Your task to perform on an android device: open app "Lyft - Rideshare, Bikes, Scooters & Transit" Image 0: 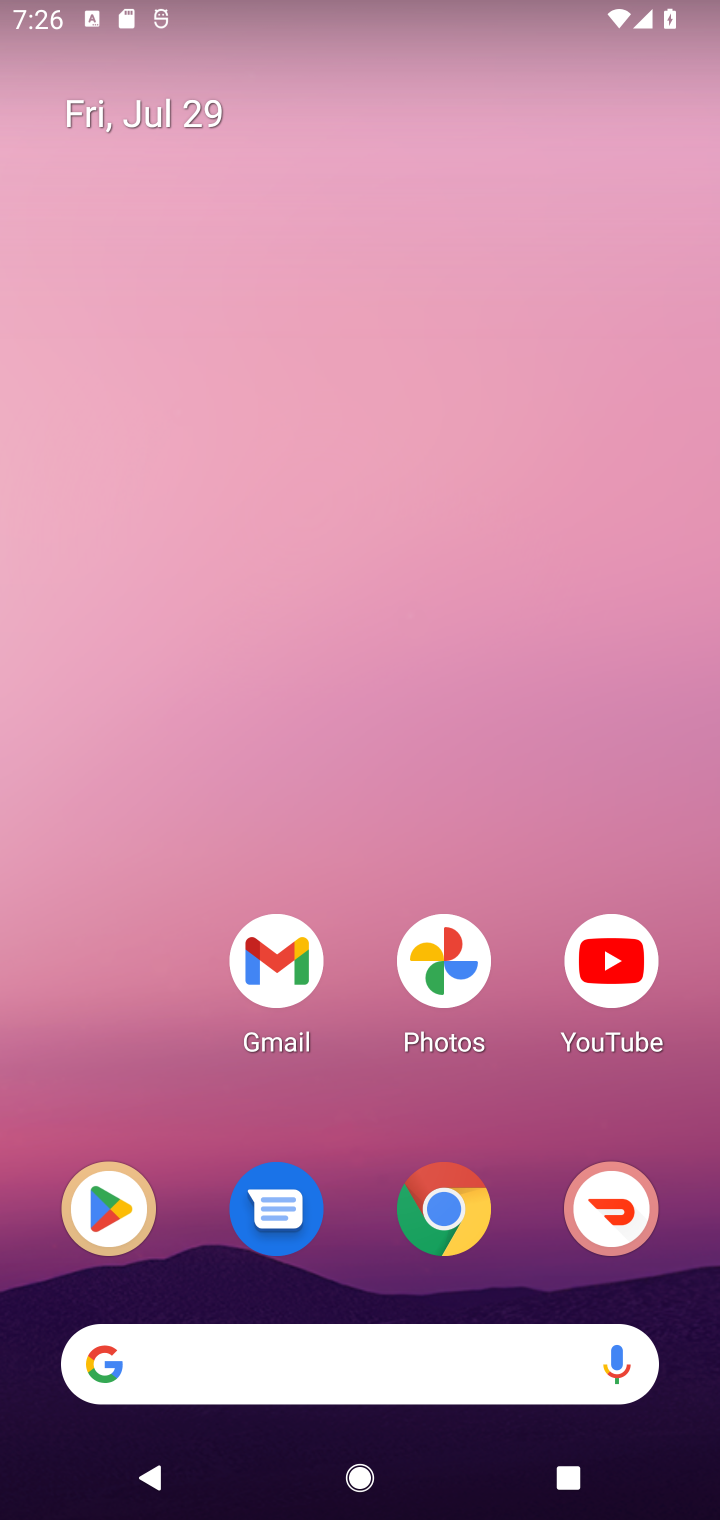
Step 0: click (100, 1221)
Your task to perform on an android device: open app "Lyft - Rideshare, Bikes, Scooters & Transit" Image 1: 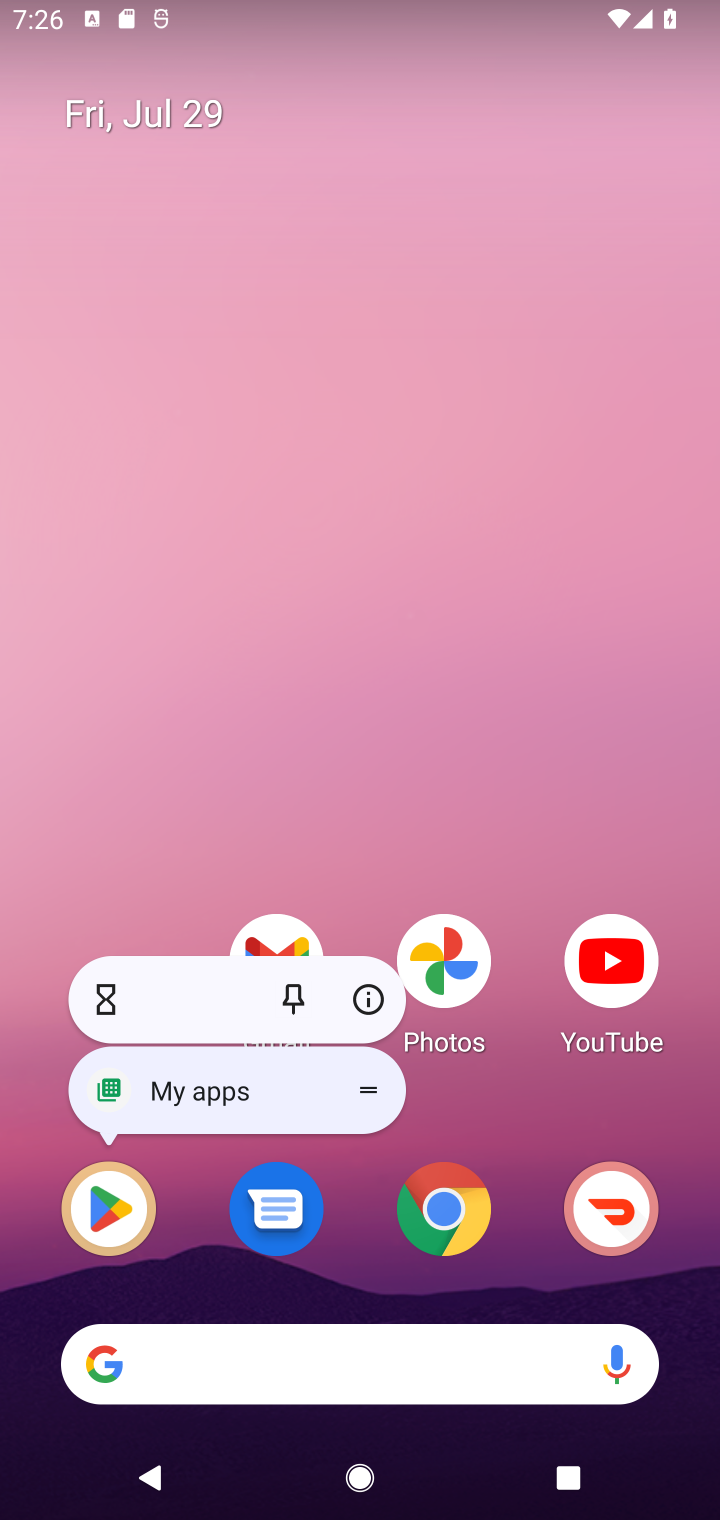
Step 1: click (123, 1189)
Your task to perform on an android device: open app "Lyft - Rideshare, Bikes, Scooters & Transit" Image 2: 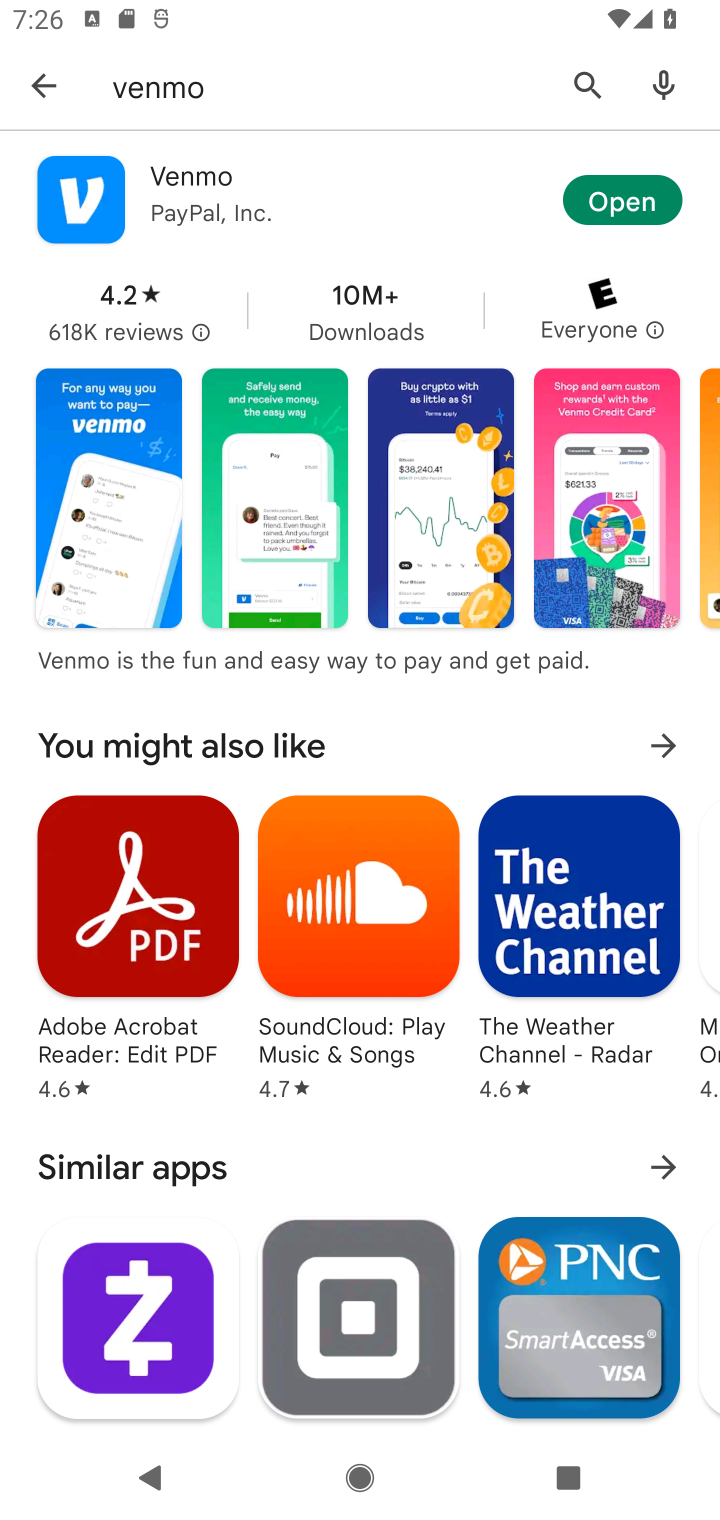
Step 2: click (572, 92)
Your task to perform on an android device: open app "Lyft - Rideshare, Bikes, Scooters & Transit" Image 3: 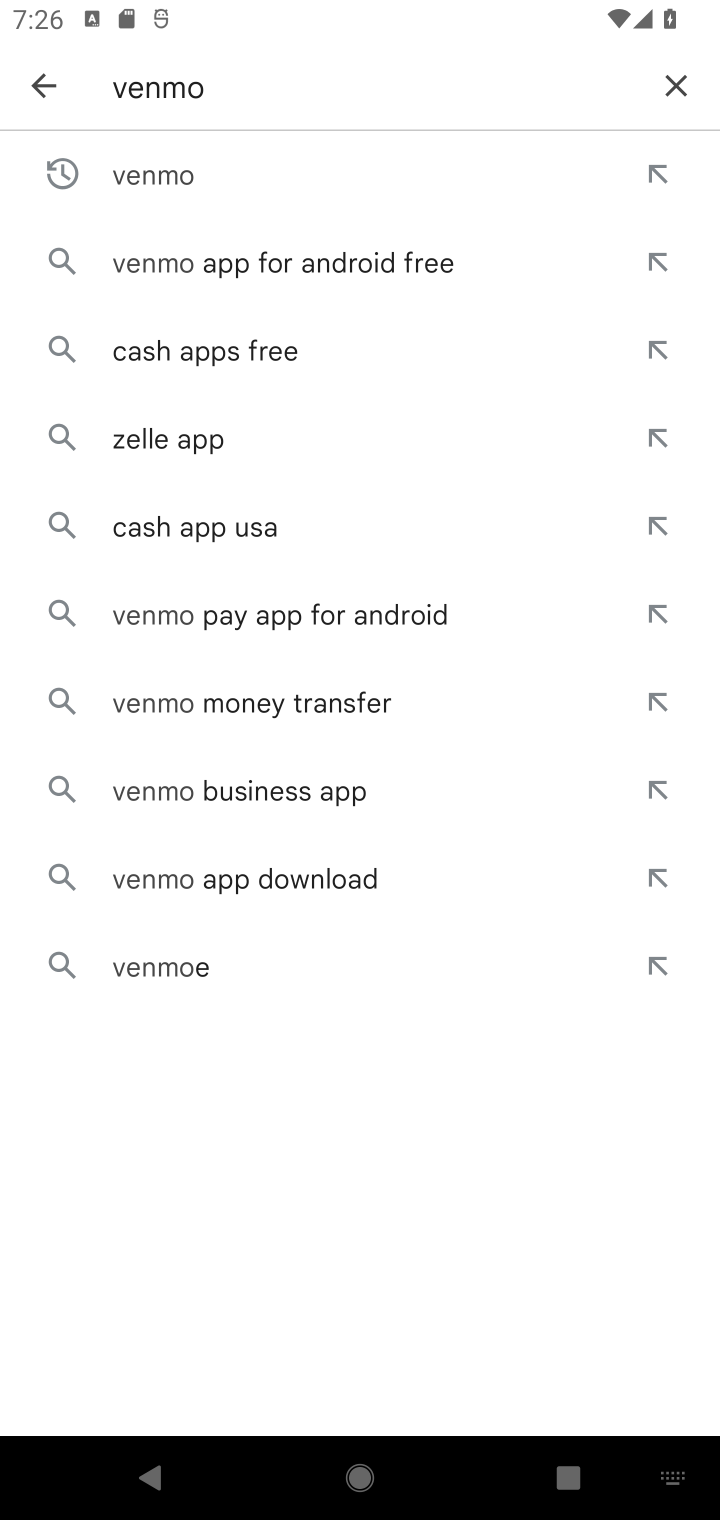
Step 3: click (682, 103)
Your task to perform on an android device: open app "Lyft - Rideshare, Bikes, Scooters & Transit" Image 4: 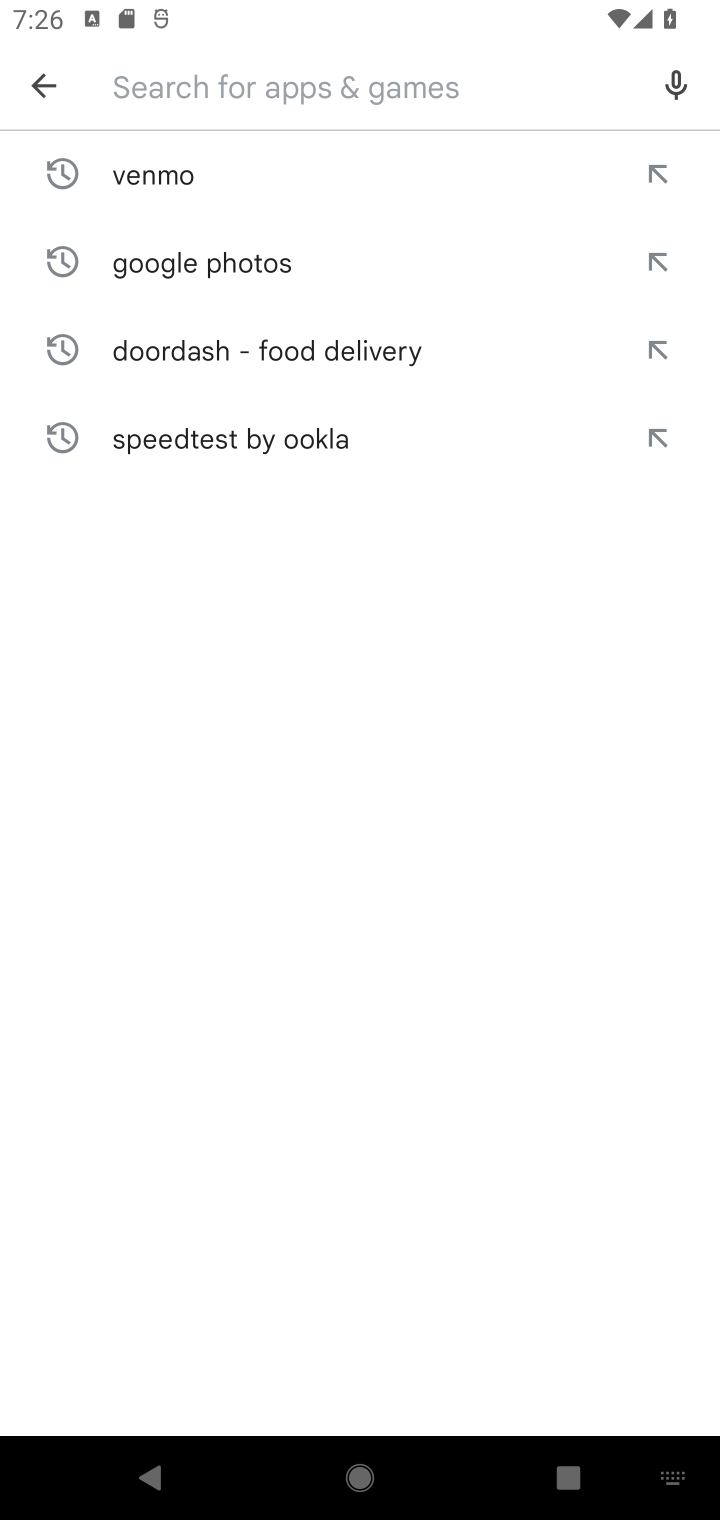
Step 4: type "Lyft - Rideshare, Bikes, Scooters & Transit"
Your task to perform on an android device: open app "Lyft - Rideshare, Bikes, Scooters & Transit" Image 5: 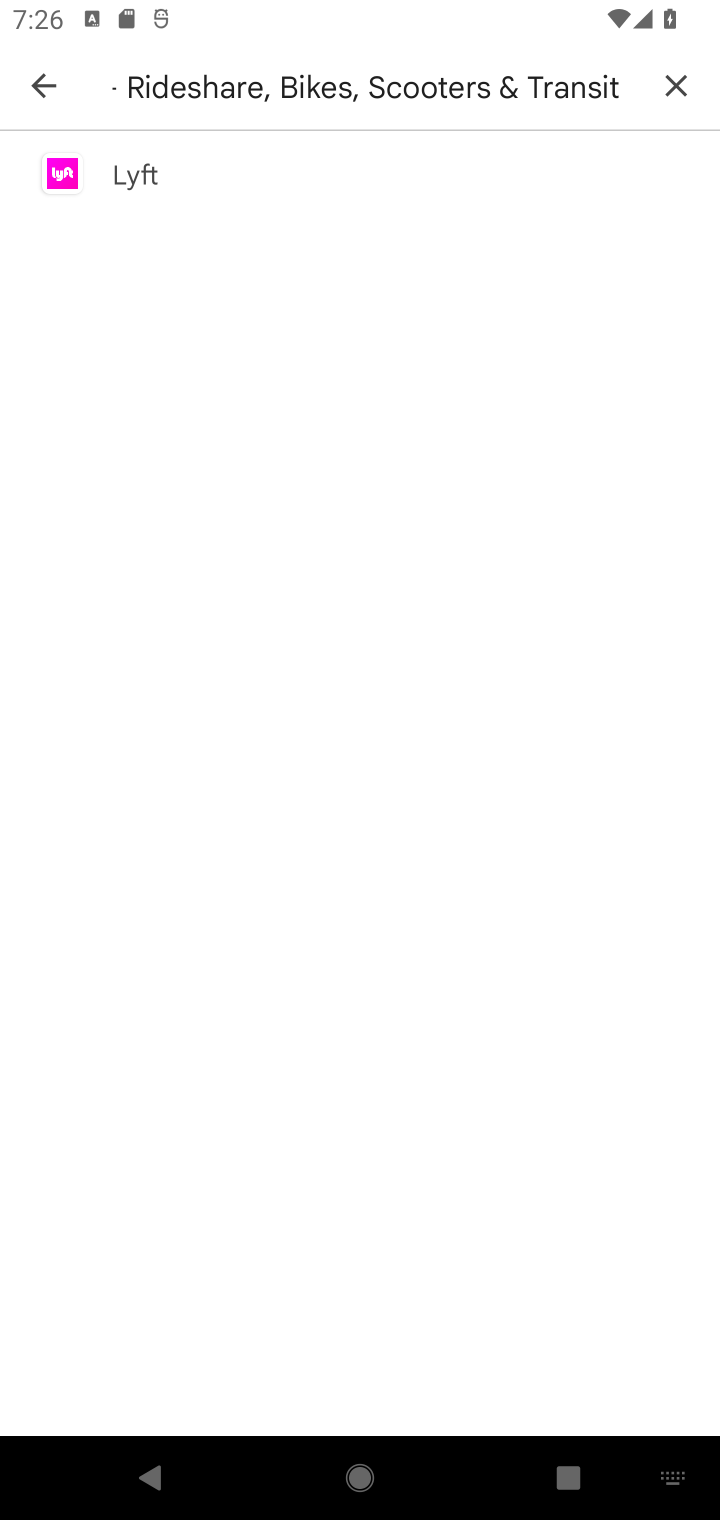
Step 5: click (157, 187)
Your task to perform on an android device: open app "Lyft - Rideshare, Bikes, Scooters & Transit" Image 6: 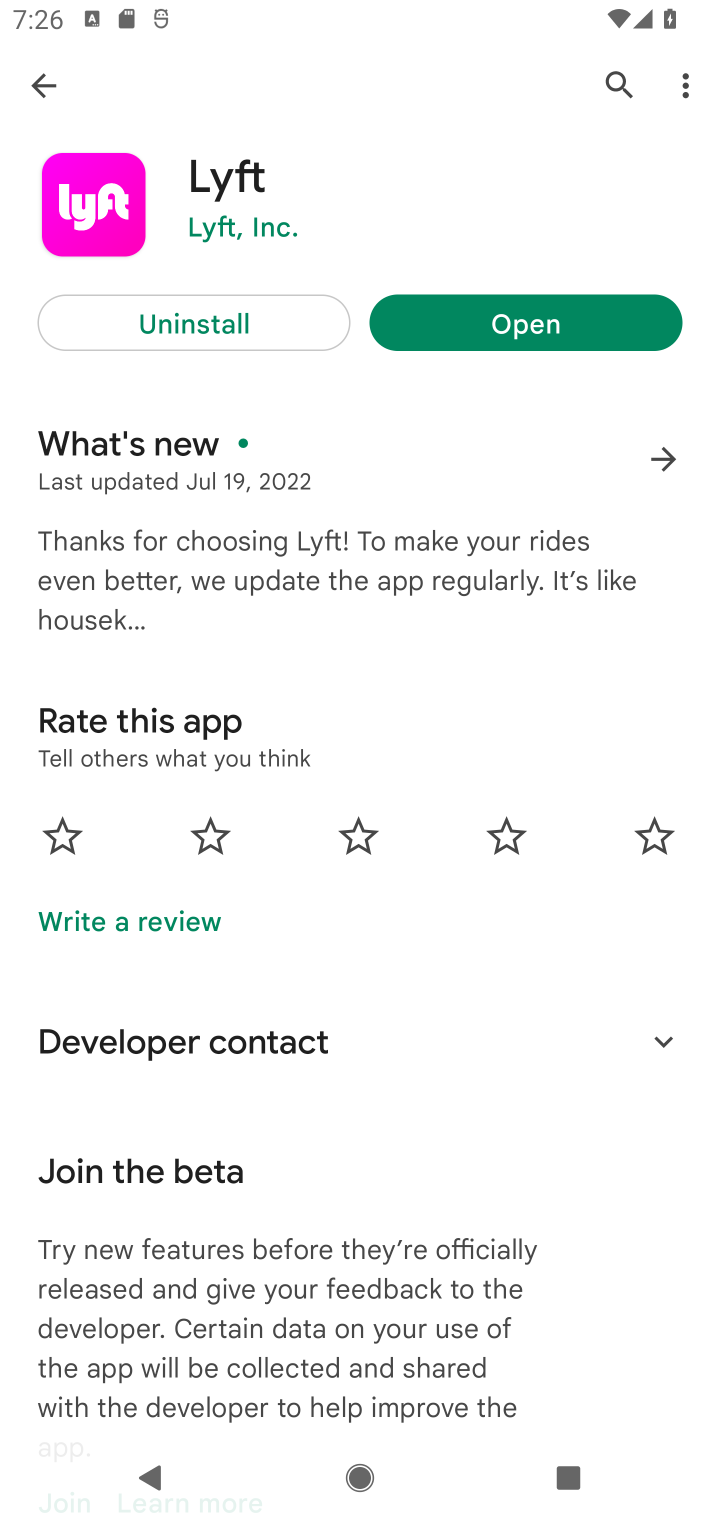
Step 6: click (456, 337)
Your task to perform on an android device: open app "Lyft - Rideshare, Bikes, Scooters & Transit" Image 7: 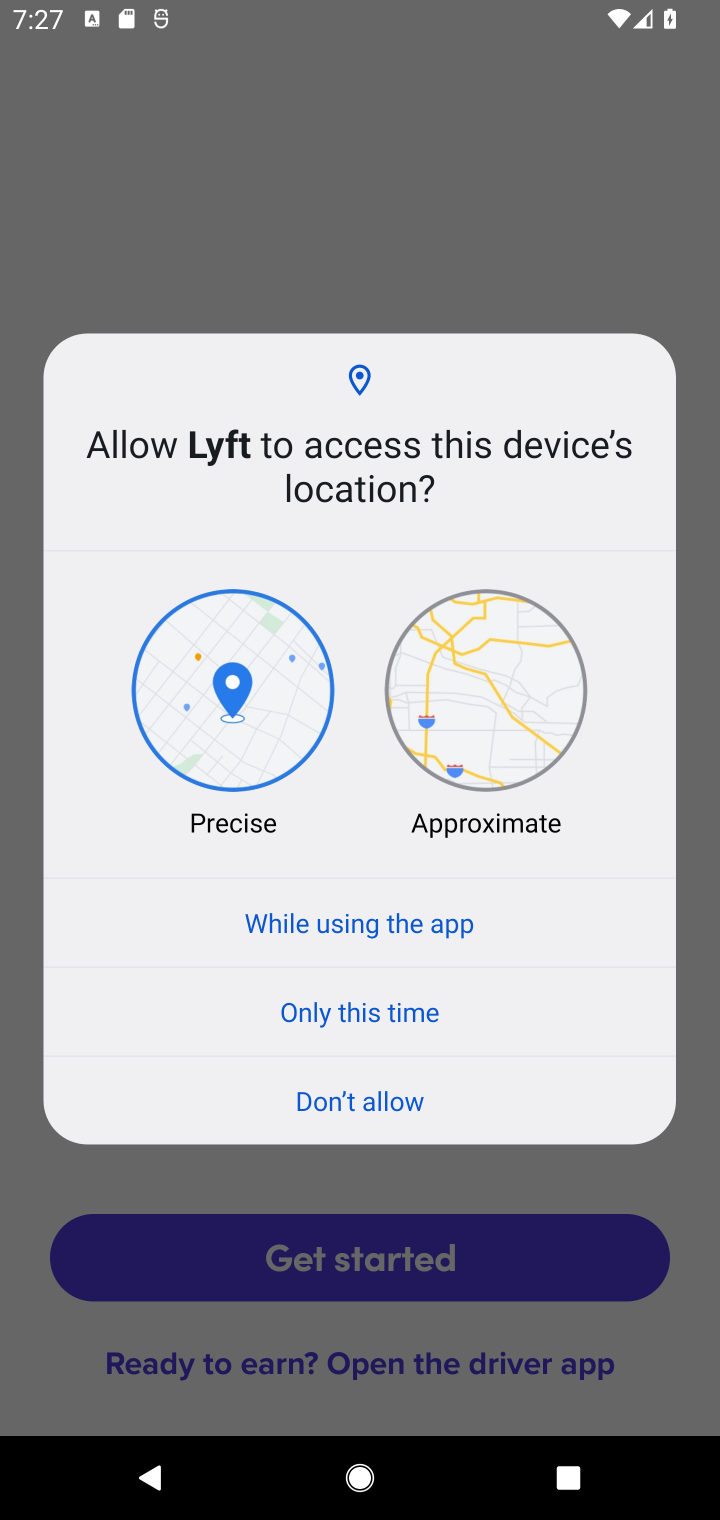
Step 7: task complete